Your task to perform on an android device: search for starred emails in the gmail app Image 0: 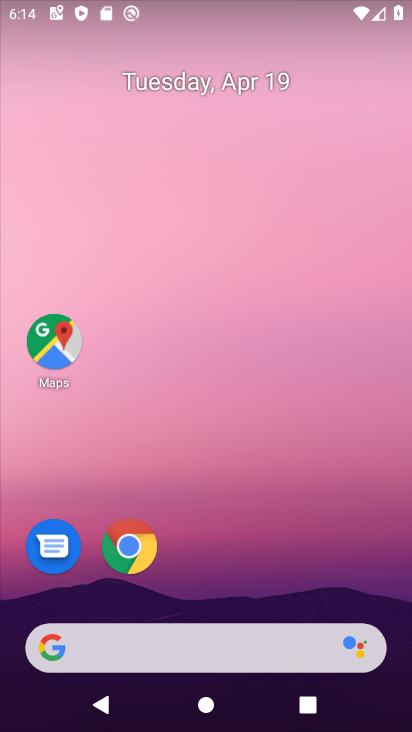
Step 0: drag from (196, 586) to (201, 16)
Your task to perform on an android device: search for starred emails in the gmail app Image 1: 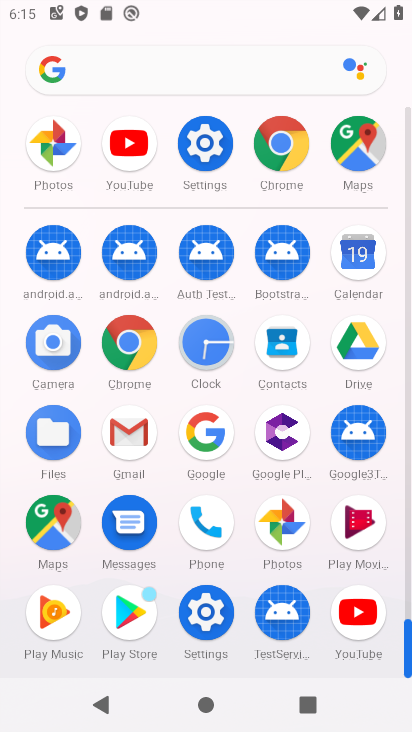
Step 1: click (128, 442)
Your task to perform on an android device: search for starred emails in the gmail app Image 2: 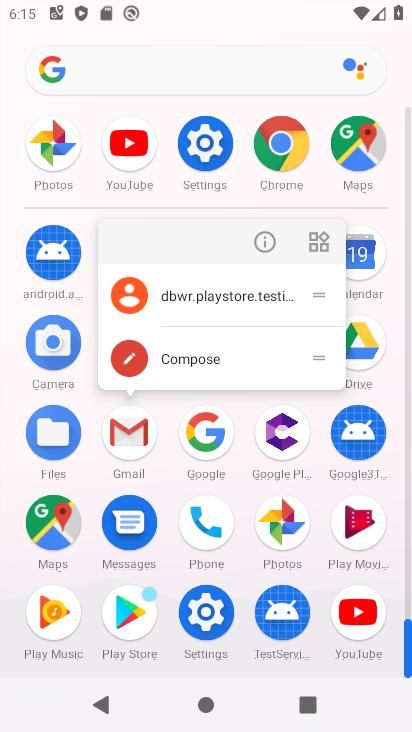
Step 2: click (124, 425)
Your task to perform on an android device: search for starred emails in the gmail app Image 3: 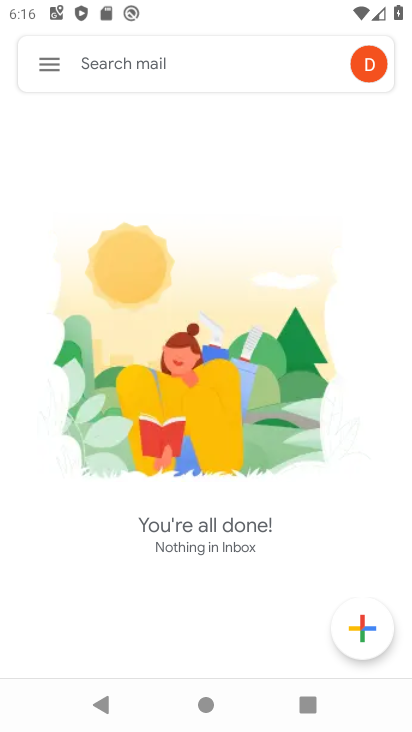
Step 3: click (40, 61)
Your task to perform on an android device: search for starred emails in the gmail app Image 4: 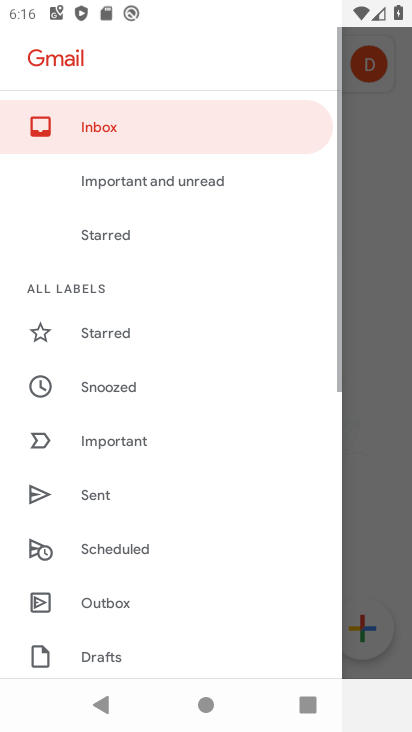
Step 4: click (128, 233)
Your task to perform on an android device: search for starred emails in the gmail app Image 5: 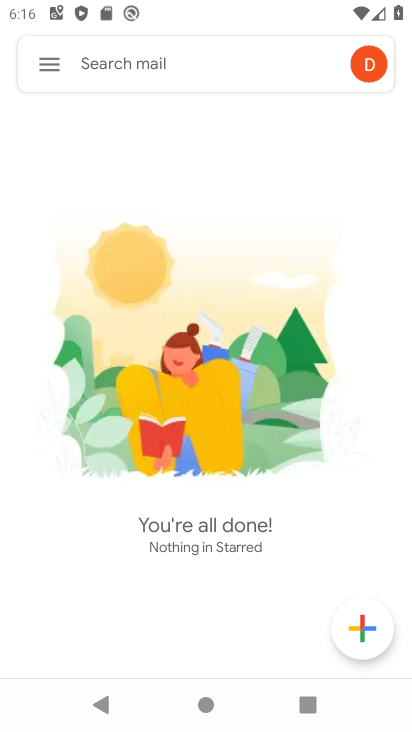
Step 5: task complete